Your task to perform on an android device: turn off priority inbox in the gmail app Image 0: 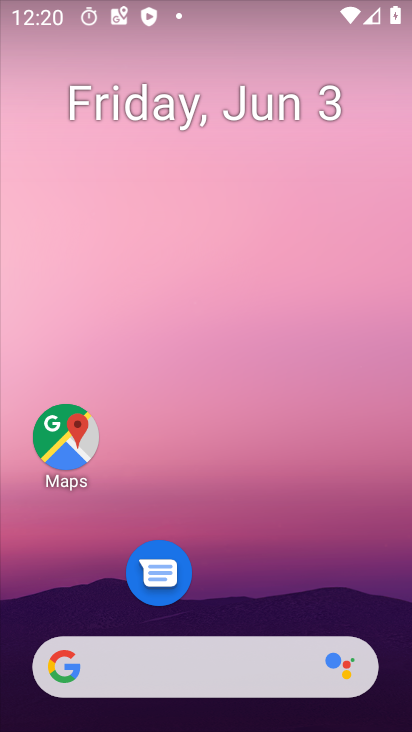
Step 0: drag from (309, 635) to (360, 64)
Your task to perform on an android device: turn off priority inbox in the gmail app Image 1: 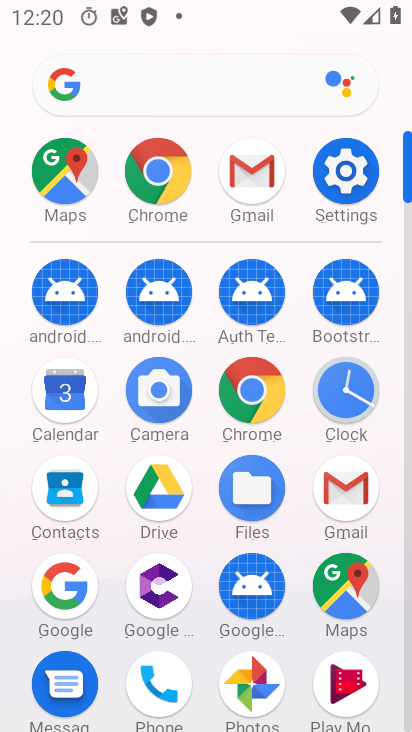
Step 1: click (338, 485)
Your task to perform on an android device: turn off priority inbox in the gmail app Image 2: 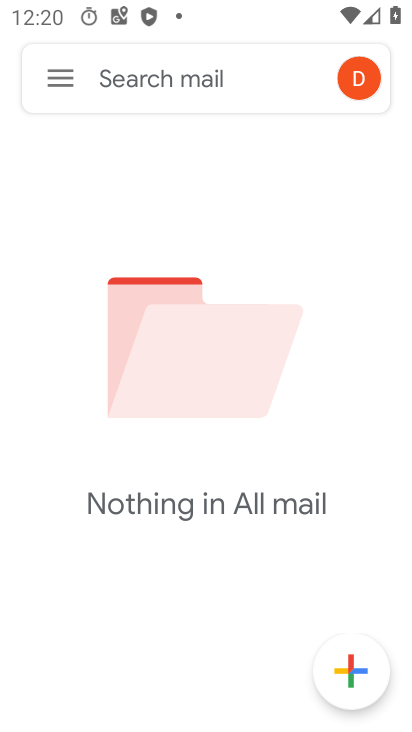
Step 2: click (55, 84)
Your task to perform on an android device: turn off priority inbox in the gmail app Image 3: 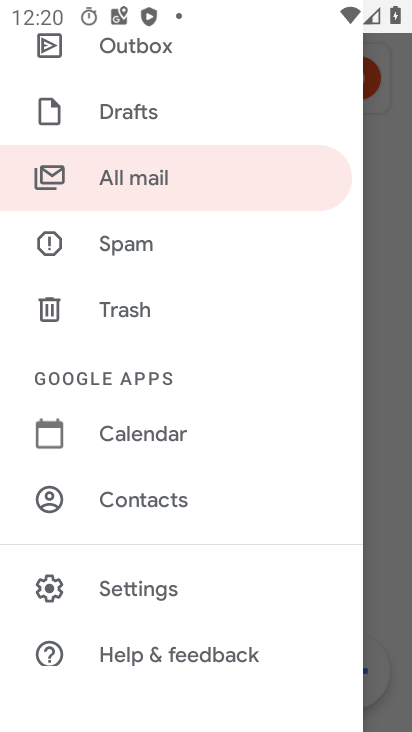
Step 3: click (184, 592)
Your task to perform on an android device: turn off priority inbox in the gmail app Image 4: 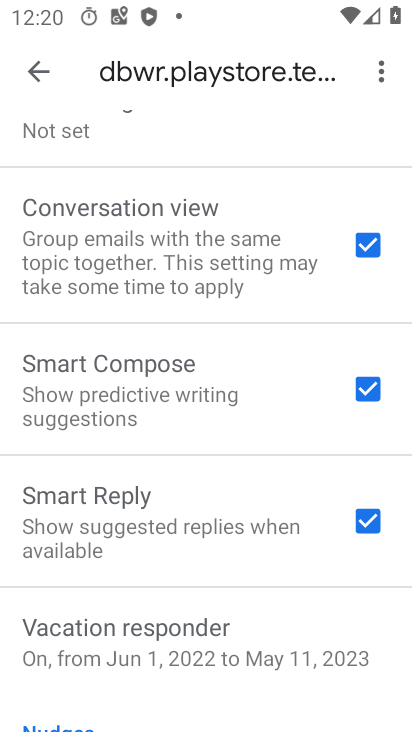
Step 4: drag from (164, 313) to (176, 707)
Your task to perform on an android device: turn off priority inbox in the gmail app Image 5: 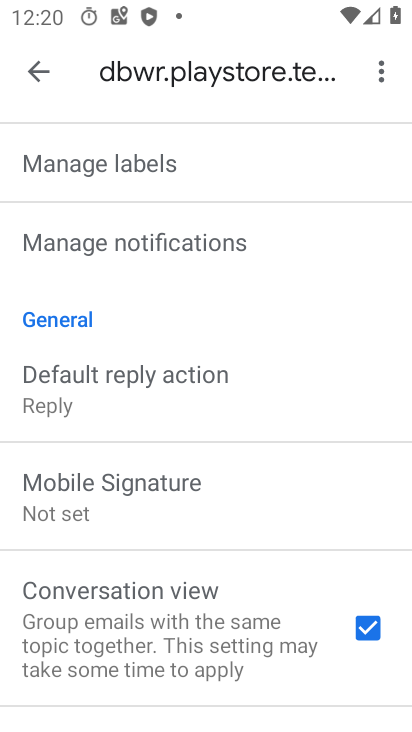
Step 5: drag from (205, 225) to (211, 724)
Your task to perform on an android device: turn off priority inbox in the gmail app Image 6: 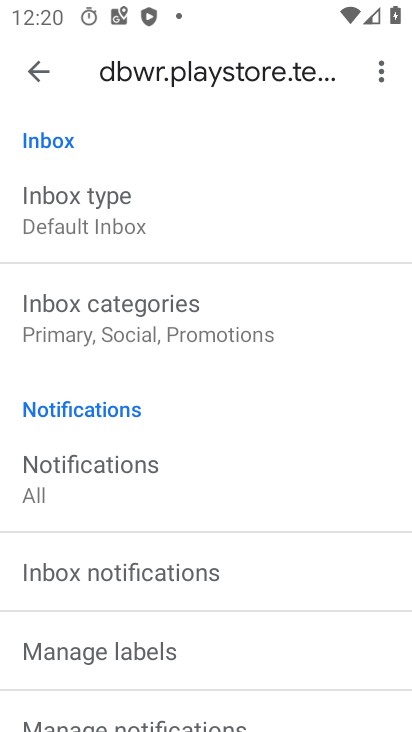
Step 6: click (170, 226)
Your task to perform on an android device: turn off priority inbox in the gmail app Image 7: 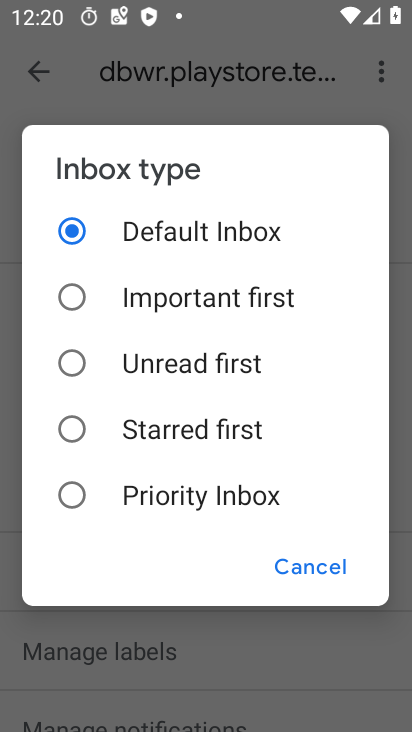
Step 7: click (154, 510)
Your task to perform on an android device: turn off priority inbox in the gmail app Image 8: 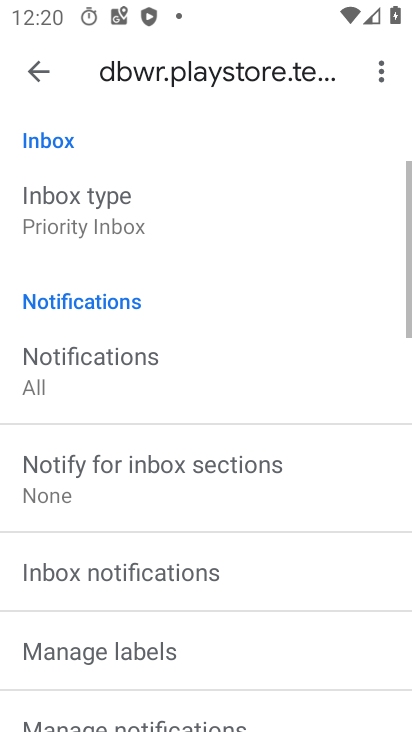
Step 8: click (135, 224)
Your task to perform on an android device: turn off priority inbox in the gmail app Image 9: 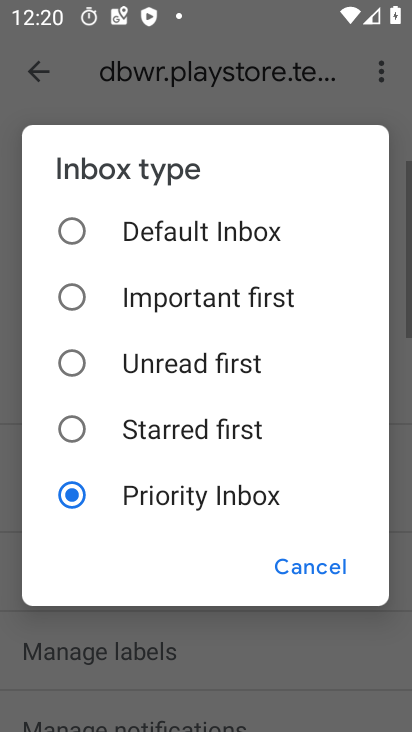
Step 9: click (90, 233)
Your task to perform on an android device: turn off priority inbox in the gmail app Image 10: 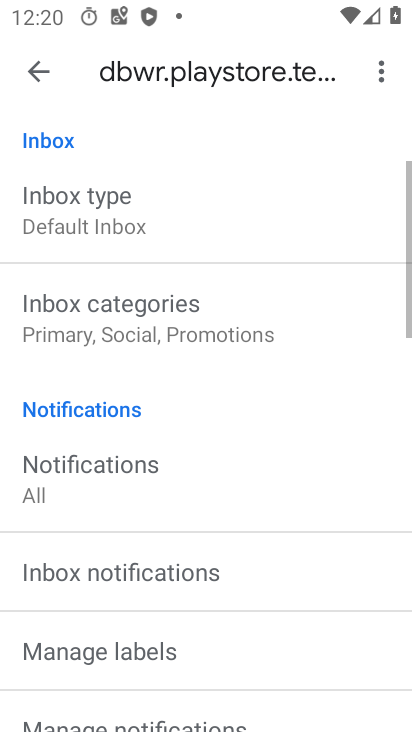
Step 10: task complete